Your task to perform on an android device: Clear the shopping cart on amazon.com. Search for "energizer triple a" on amazon.com, select the first entry, add it to the cart, then select checkout. Image 0: 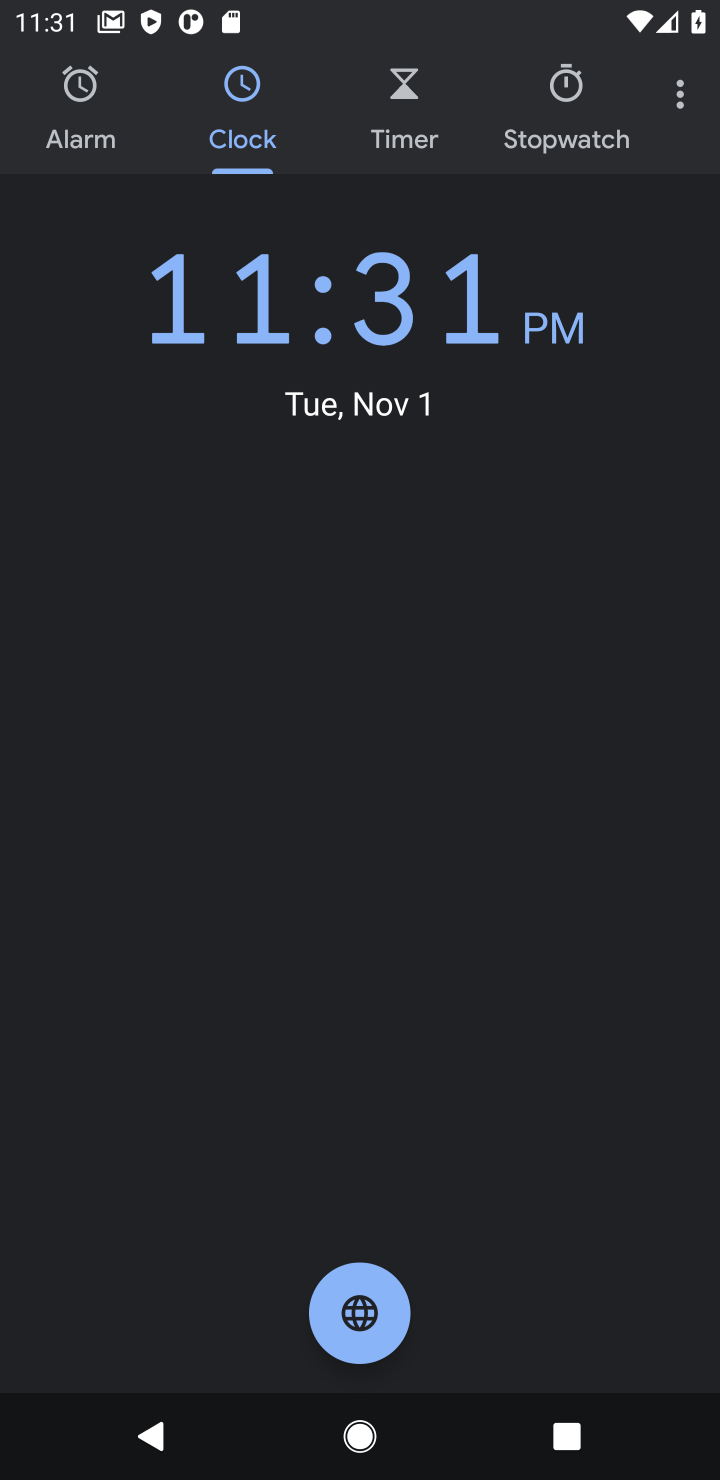
Step 0: press home button
Your task to perform on an android device: Clear the shopping cart on amazon.com. Search for "energizer triple a" on amazon.com, select the first entry, add it to the cart, then select checkout. Image 1: 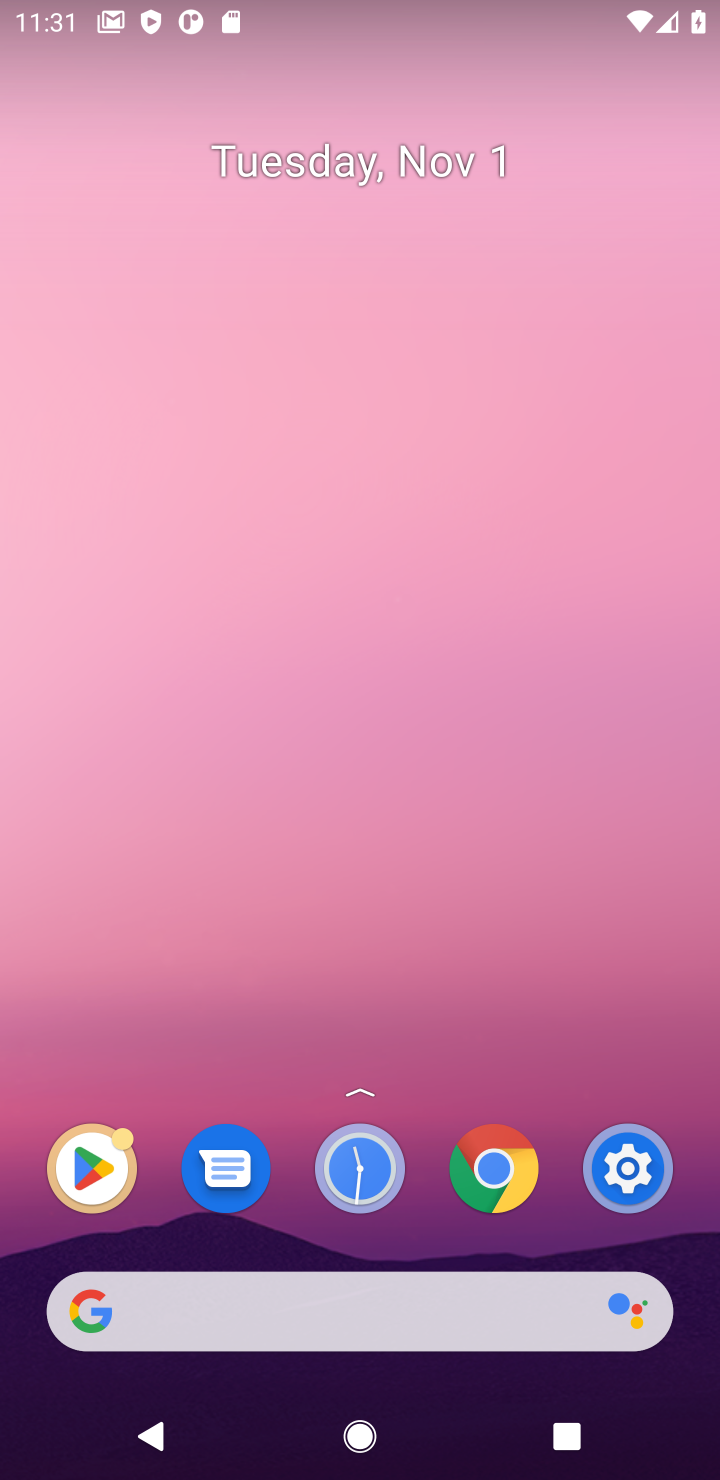
Step 1: click (488, 1154)
Your task to perform on an android device: Clear the shopping cart on amazon.com. Search for "energizer triple a" on amazon.com, select the first entry, add it to the cart, then select checkout. Image 2: 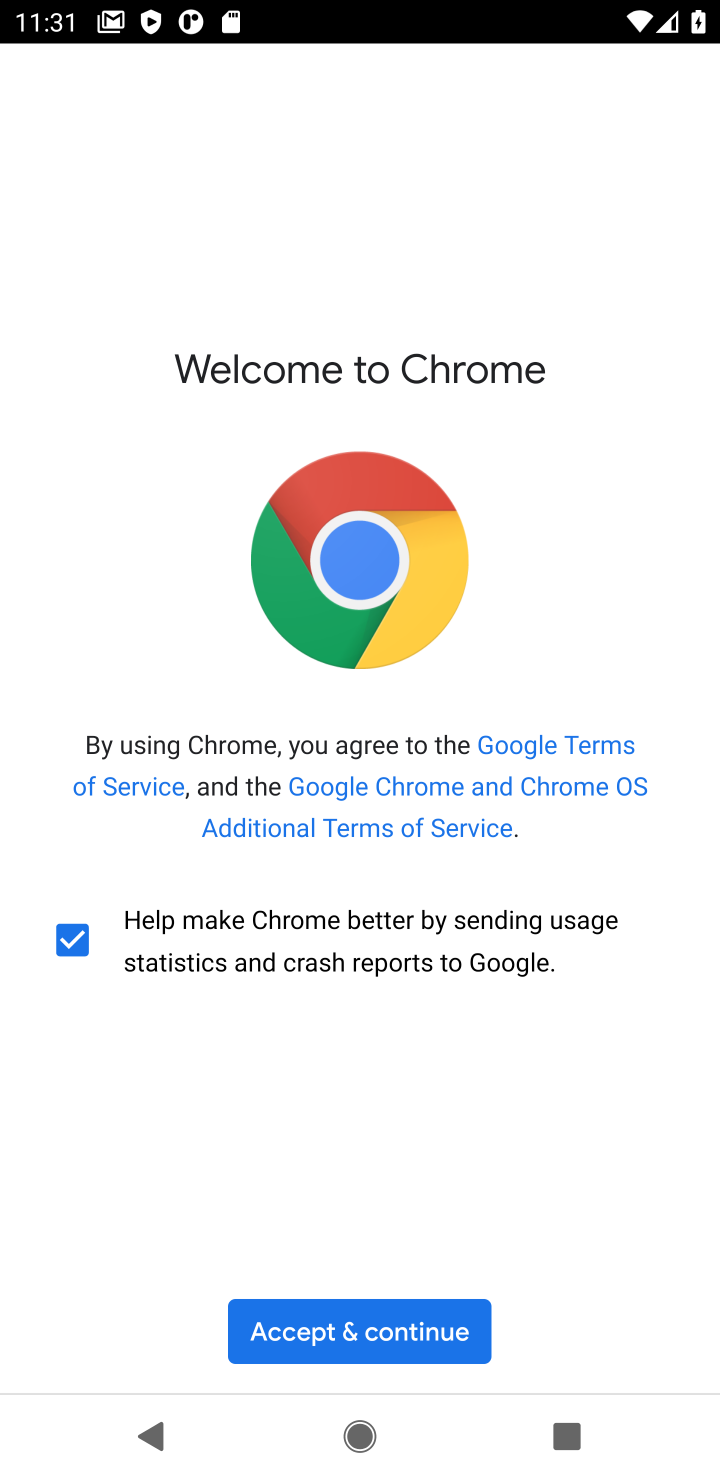
Step 2: click (406, 1335)
Your task to perform on an android device: Clear the shopping cart on amazon.com. Search for "energizer triple a" on amazon.com, select the first entry, add it to the cart, then select checkout. Image 3: 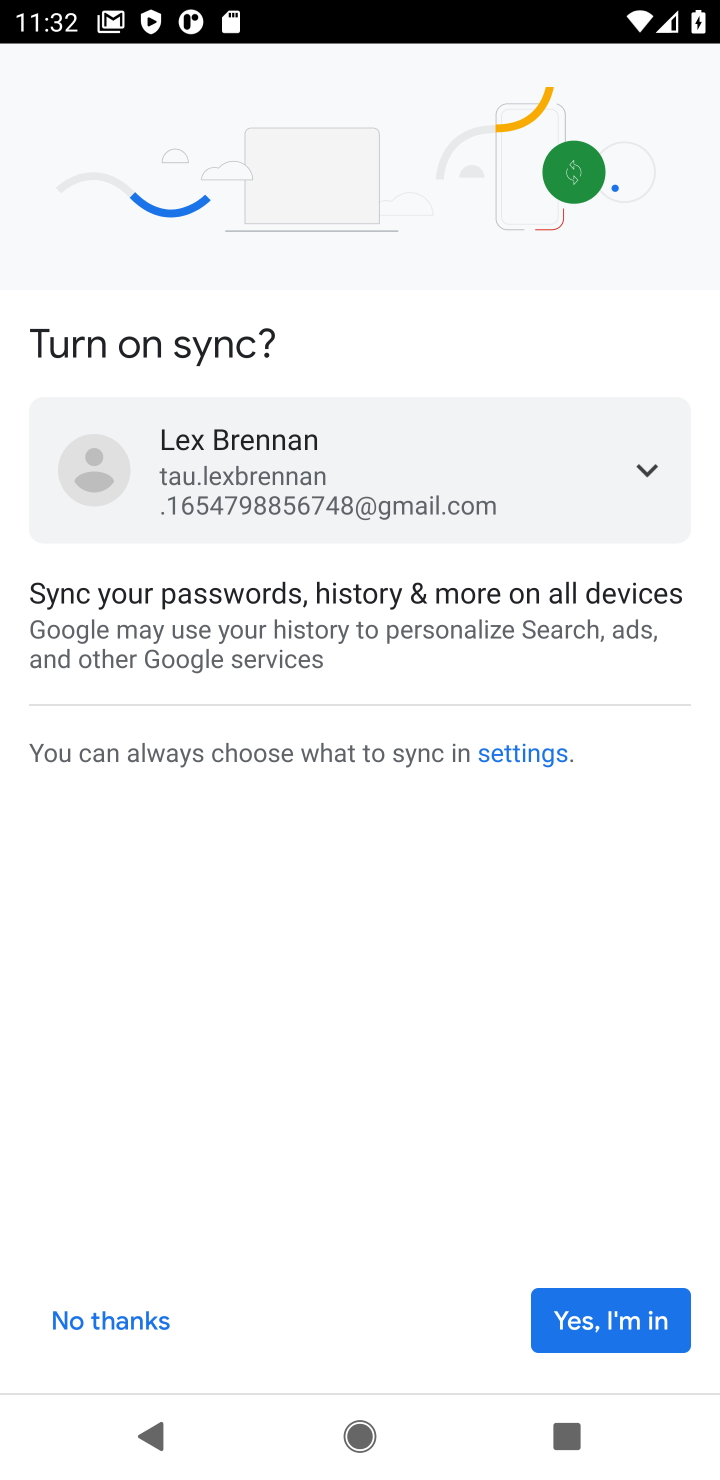
Step 3: click (565, 1318)
Your task to perform on an android device: Clear the shopping cart on amazon.com. Search for "energizer triple a" on amazon.com, select the first entry, add it to the cart, then select checkout. Image 4: 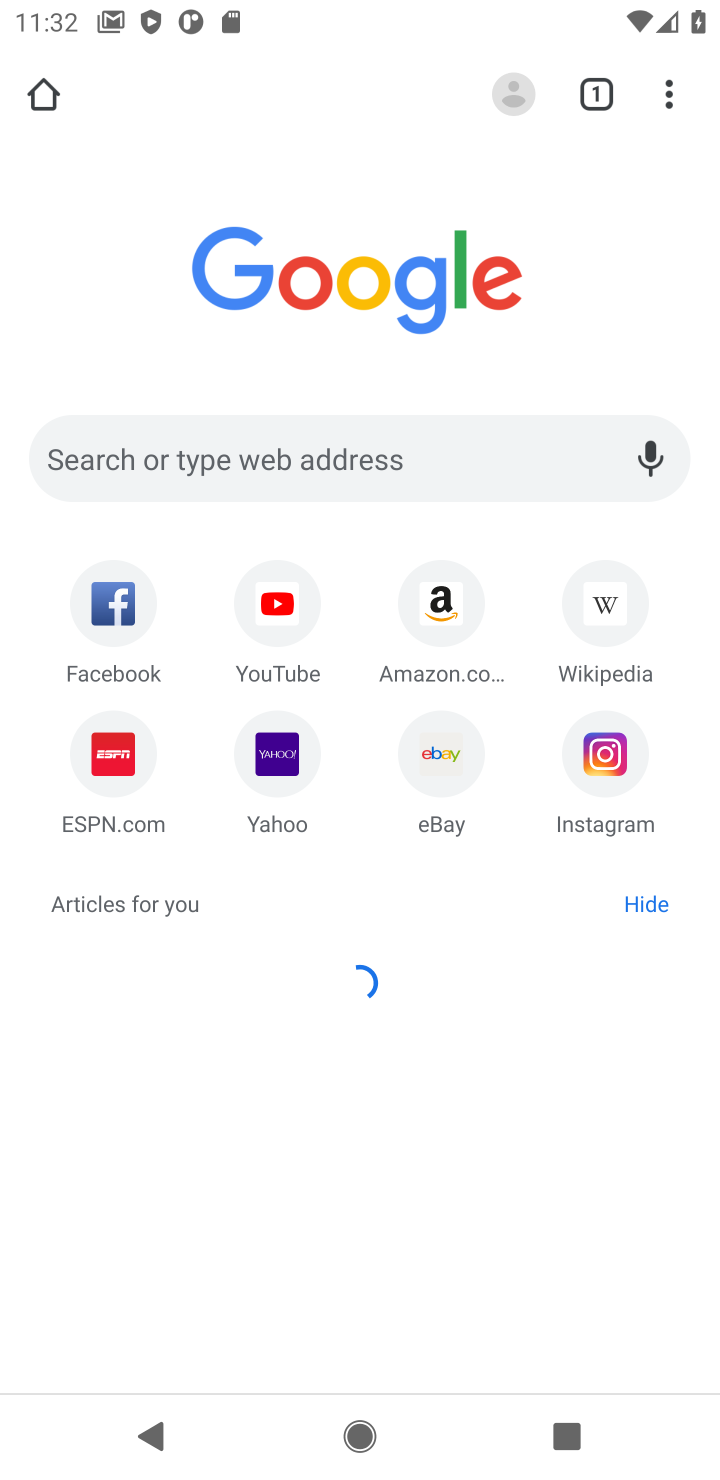
Step 4: click (532, 457)
Your task to perform on an android device: Clear the shopping cart on amazon.com. Search for "energizer triple a" on amazon.com, select the first entry, add it to the cart, then select checkout. Image 5: 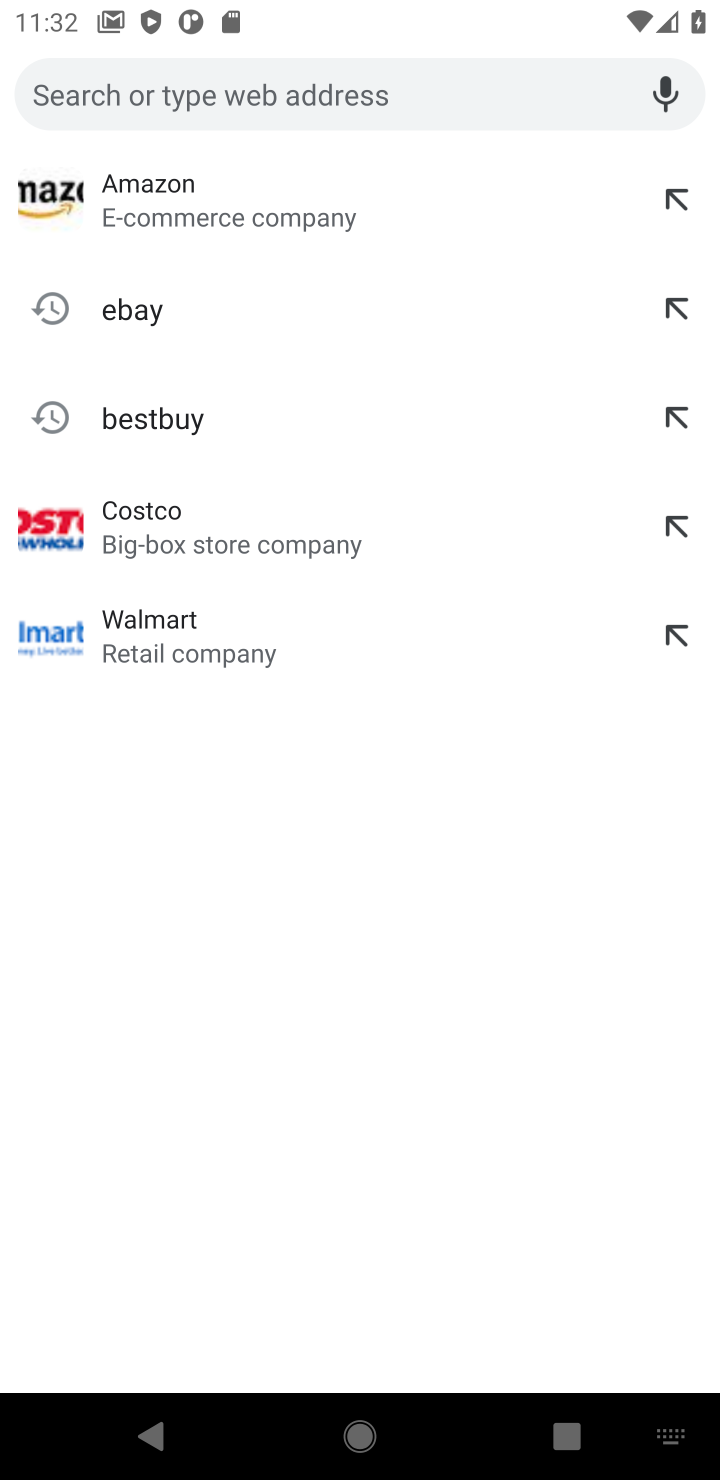
Step 5: press enter
Your task to perform on an android device: Clear the shopping cart on amazon.com. Search for "energizer triple a" on amazon.com, select the first entry, add it to the cart, then select checkout. Image 6: 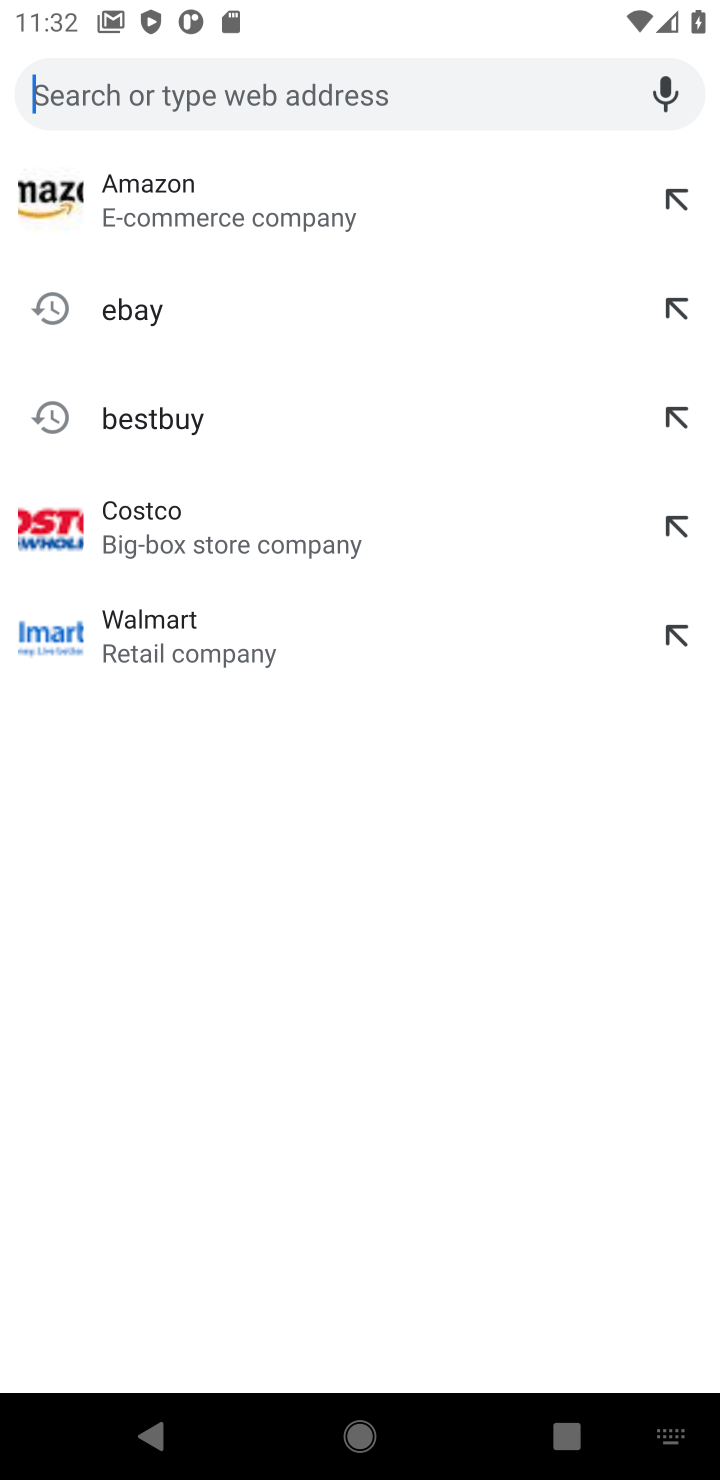
Step 6: type "amazon.com"
Your task to perform on an android device: Clear the shopping cart on amazon.com. Search for "energizer triple a" on amazon.com, select the first entry, add it to the cart, then select checkout. Image 7: 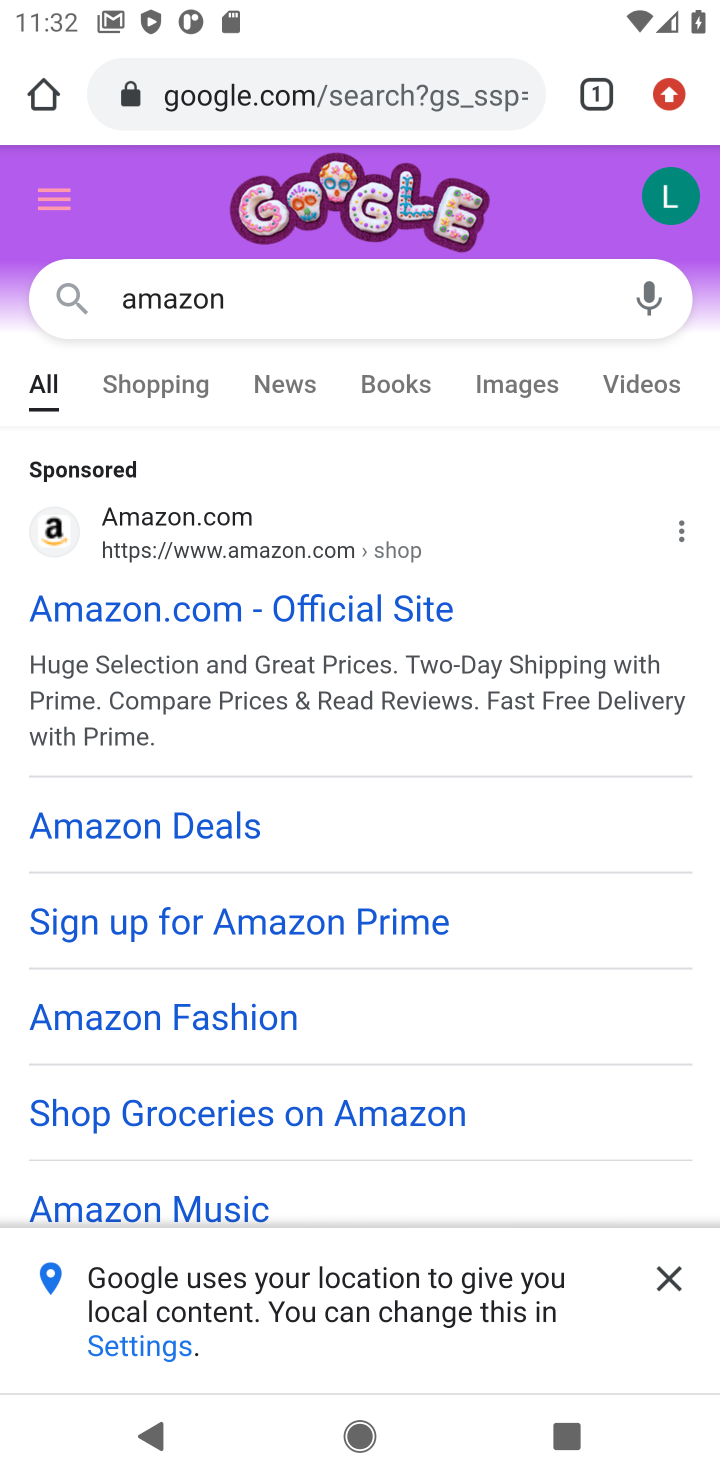
Step 7: click (200, 514)
Your task to perform on an android device: Clear the shopping cart on amazon.com. Search for "energizer triple a" on amazon.com, select the first entry, add it to the cart, then select checkout. Image 8: 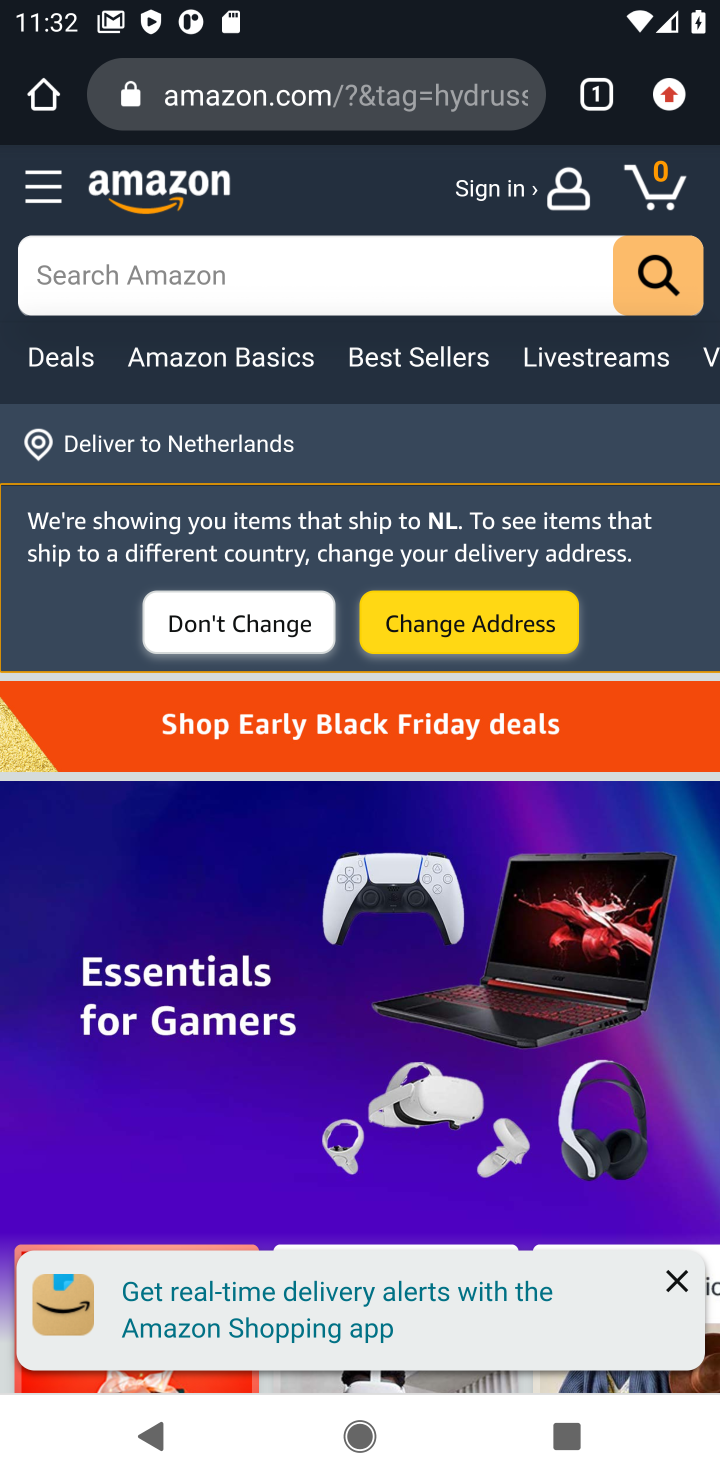
Step 8: click (424, 267)
Your task to perform on an android device: Clear the shopping cart on amazon.com. Search for "energizer triple a" on amazon.com, select the first entry, add it to the cart, then select checkout. Image 9: 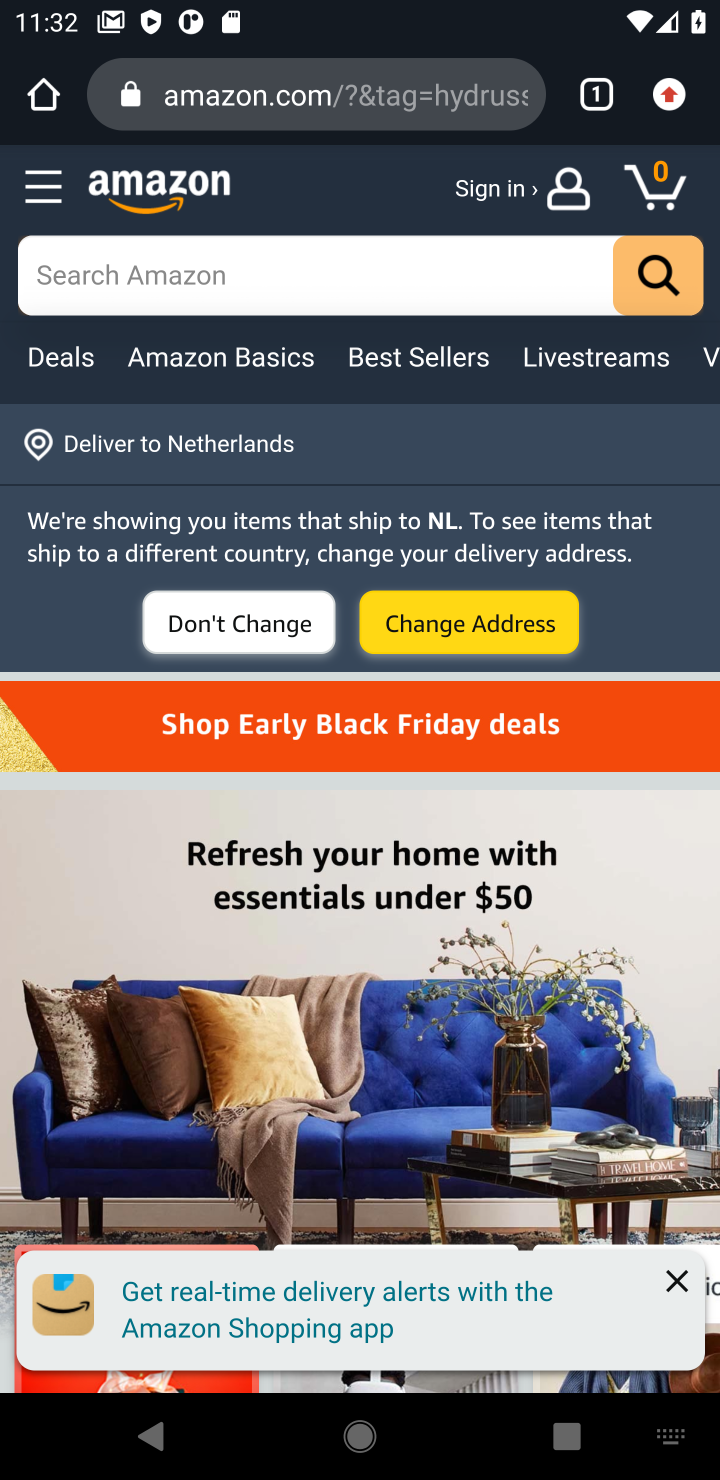
Step 9: press enter
Your task to perform on an android device: Clear the shopping cart on amazon.com. Search for "energizer triple a" on amazon.com, select the first entry, add it to the cart, then select checkout. Image 10: 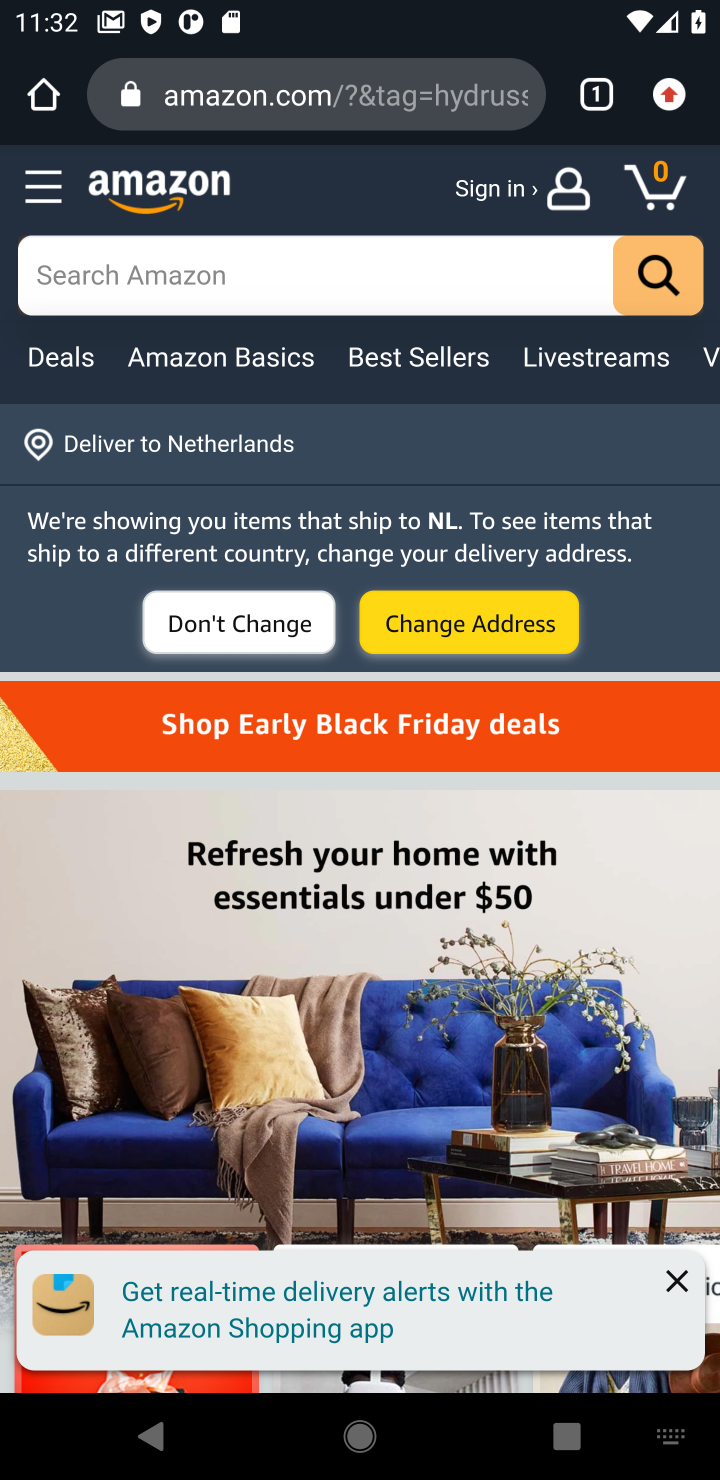
Step 10: type "energizer triple a"
Your task to perform on an android device: Clear the shopping cart on amazon.com. Search for "energizer triple a" on amazon.com, select the first entry, add it to the cart, then select checkout. Image 11: 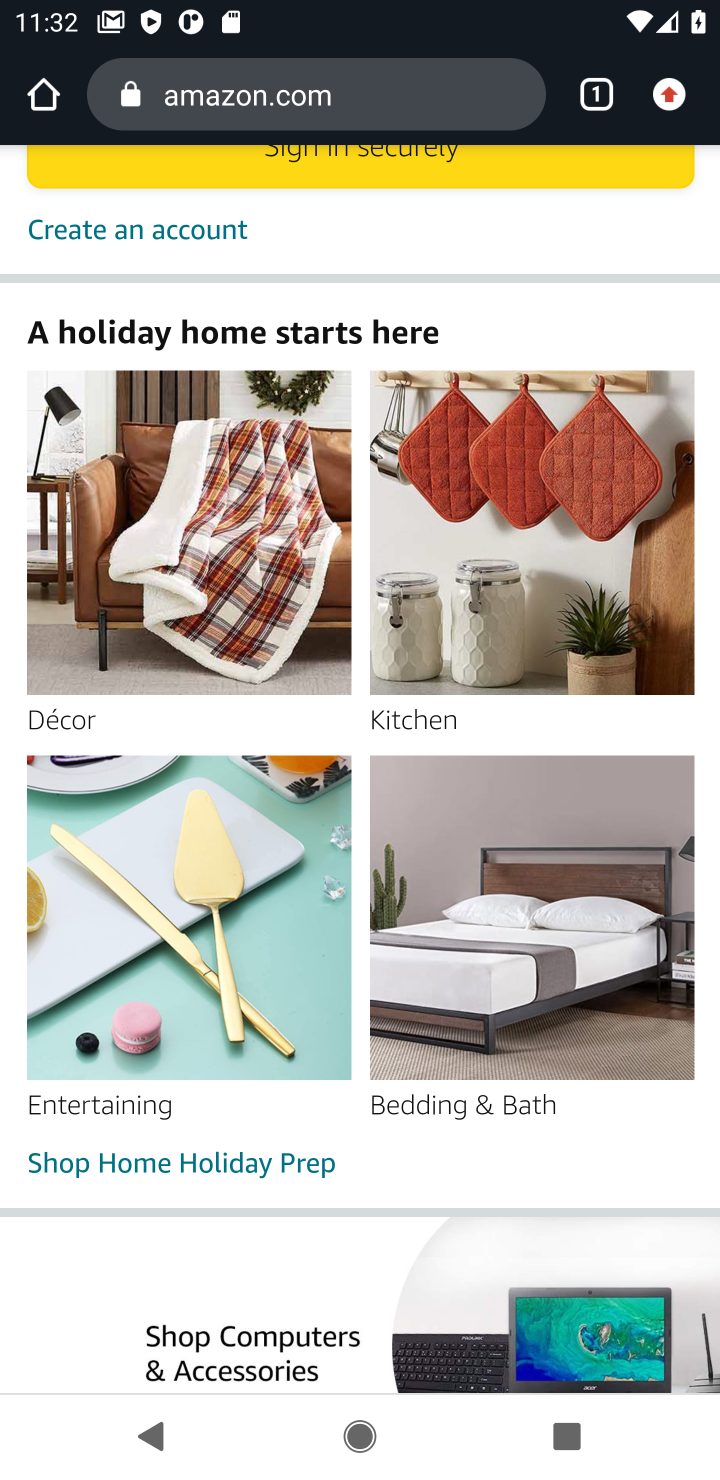
Step 11: drag from (351, 240) to (414, 1091)
Your task to perform on an android device: Clear the shopping cart on amazon.com. Search for "energizer triple a" on amazon.com, select the first entry, add it to the cart, then select checkout. Image 12: 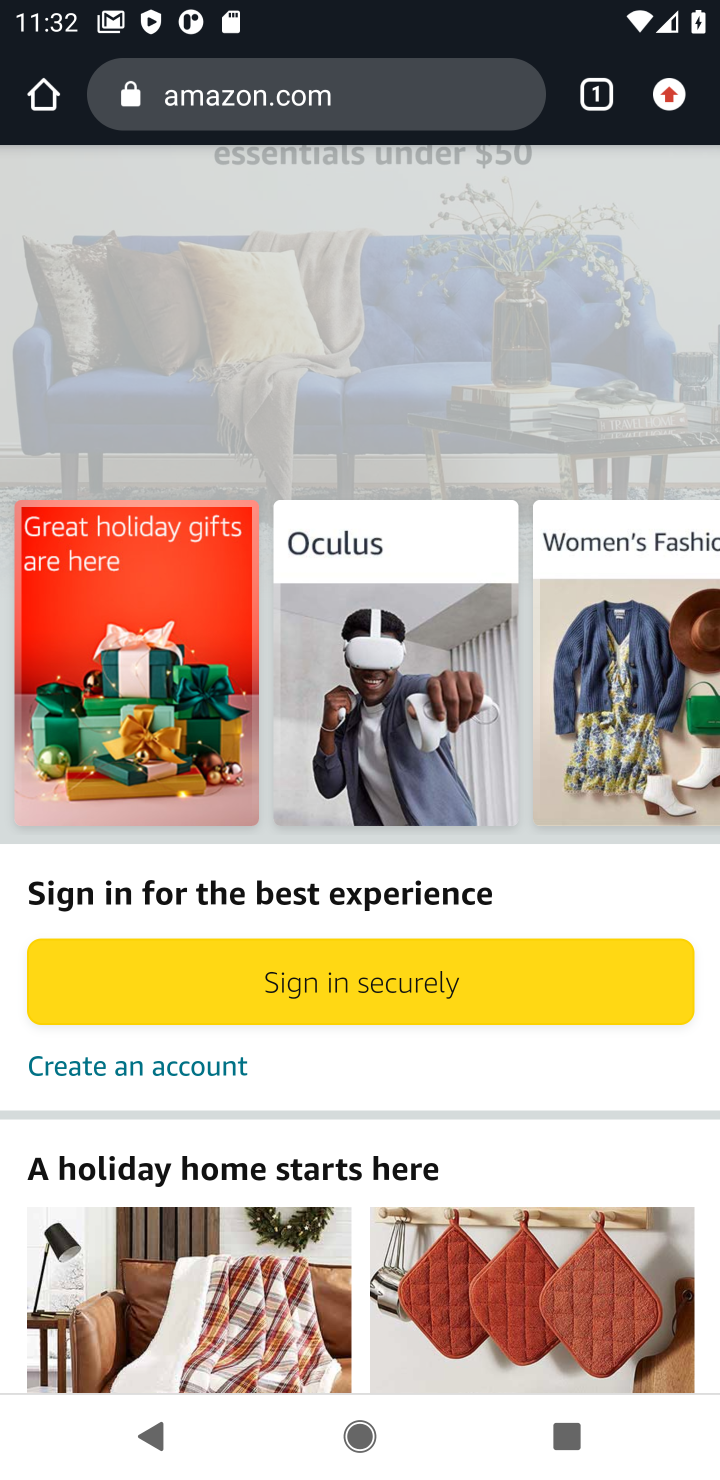
Step 12: click (574, 924)
Your task to perform on an android device: Clear the shopping cart on amazon.com. Search for "energizer triple a" on amazon.com, select the first entry, add it to the cart, then select checkout. Image 13: 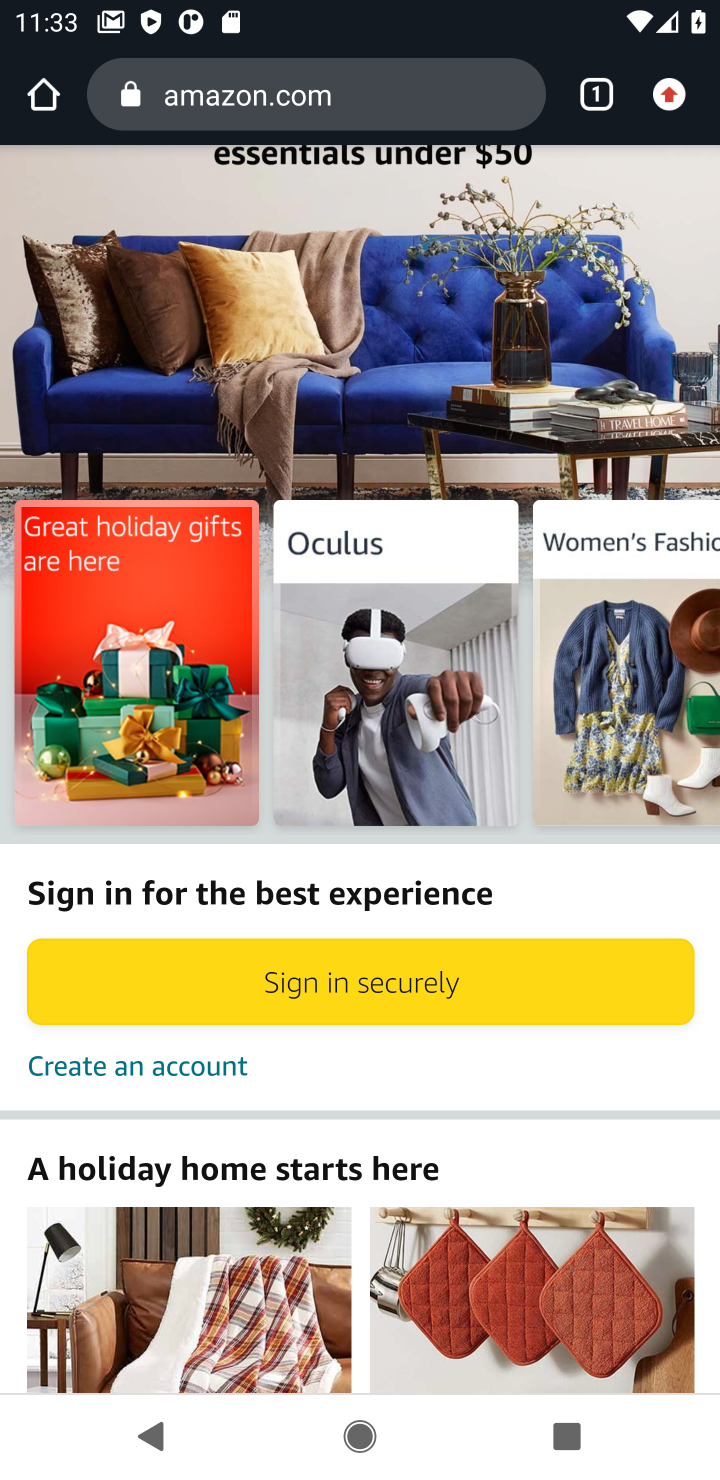
Step 13: drag from (422, 538) to (461, 1151)
Your task to perform on an android device: Clear the shopping cart on amazon.com. Search for "energizer triple a" on amazon.com, select the first entry, add it to the cart, then select checkout. Image 14: 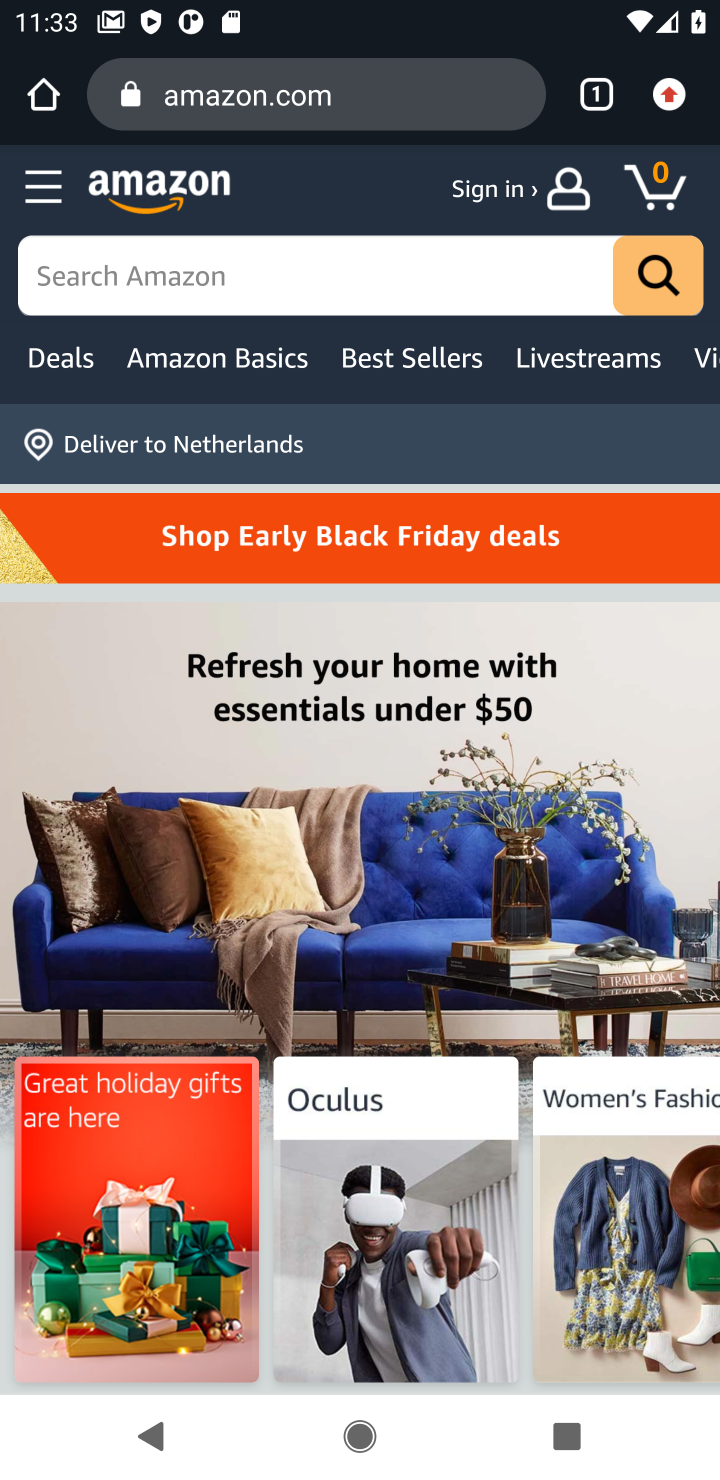
Step 14: click (314, 271)
Your task to perform on an android device: Clear the shopping cart on amazon.com. Search for "energizer triple a" on amazon.com, select the first entry, add it to the cart, then select checkout. Image 15: 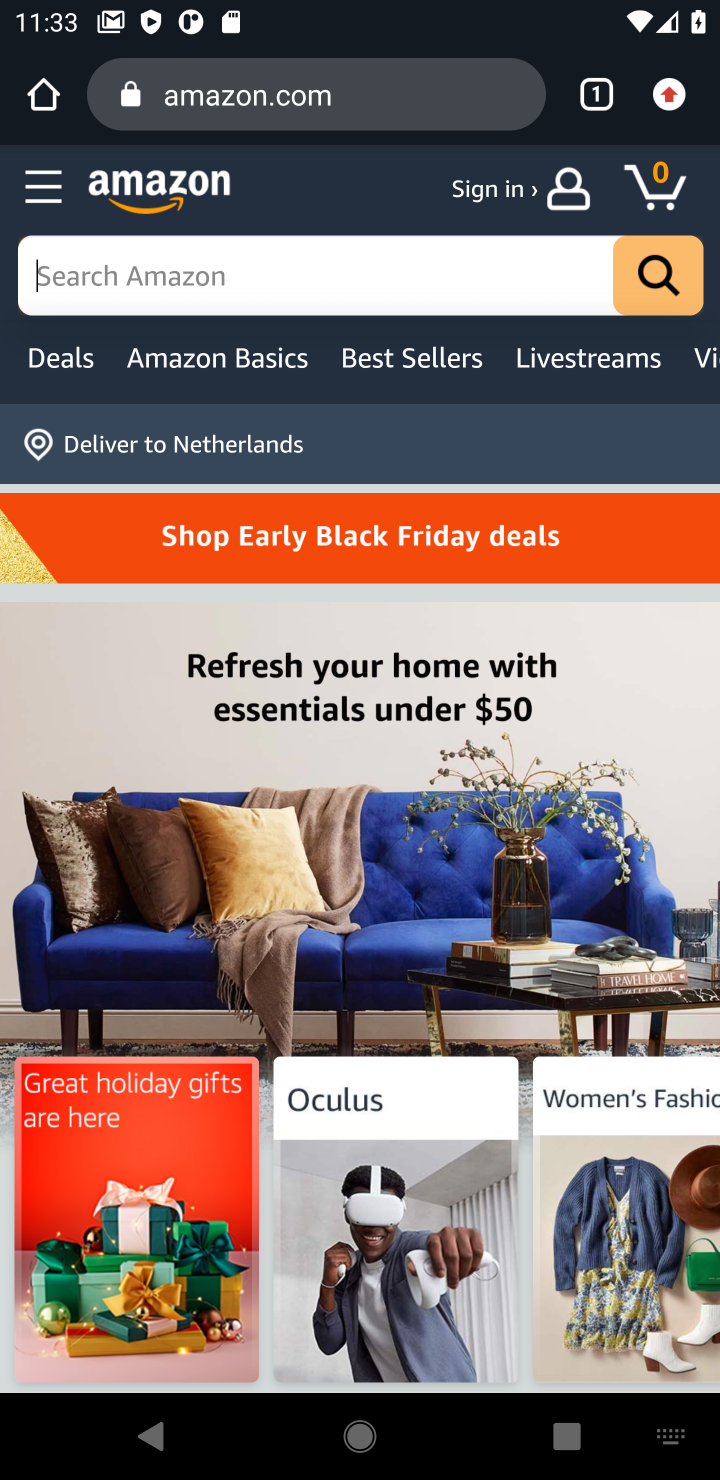
Step 15: press enter
Your task to perform on an android device: Clear the shopping cart on amazon.com. Search for "energizer triple a" on amazon.com, select the first entry, add it to the cart, then select checkout. Image 16: 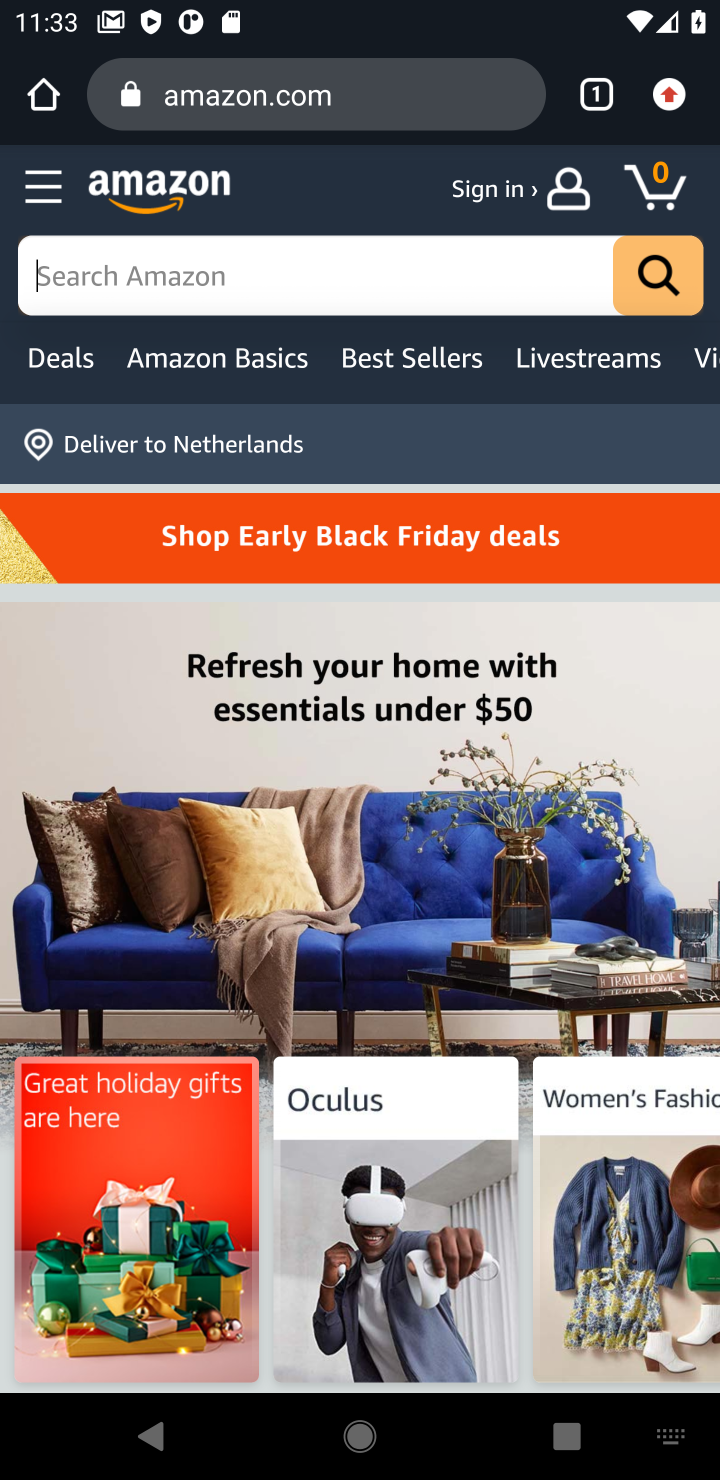
Step 16: type "energizer triple a"
Your task to perform on an android device: Clear the shopping cart on amazon.com. Search for "energizer triple a" on amazon.com, select the first entry, add it to the cart, then select checkout. Image 17: 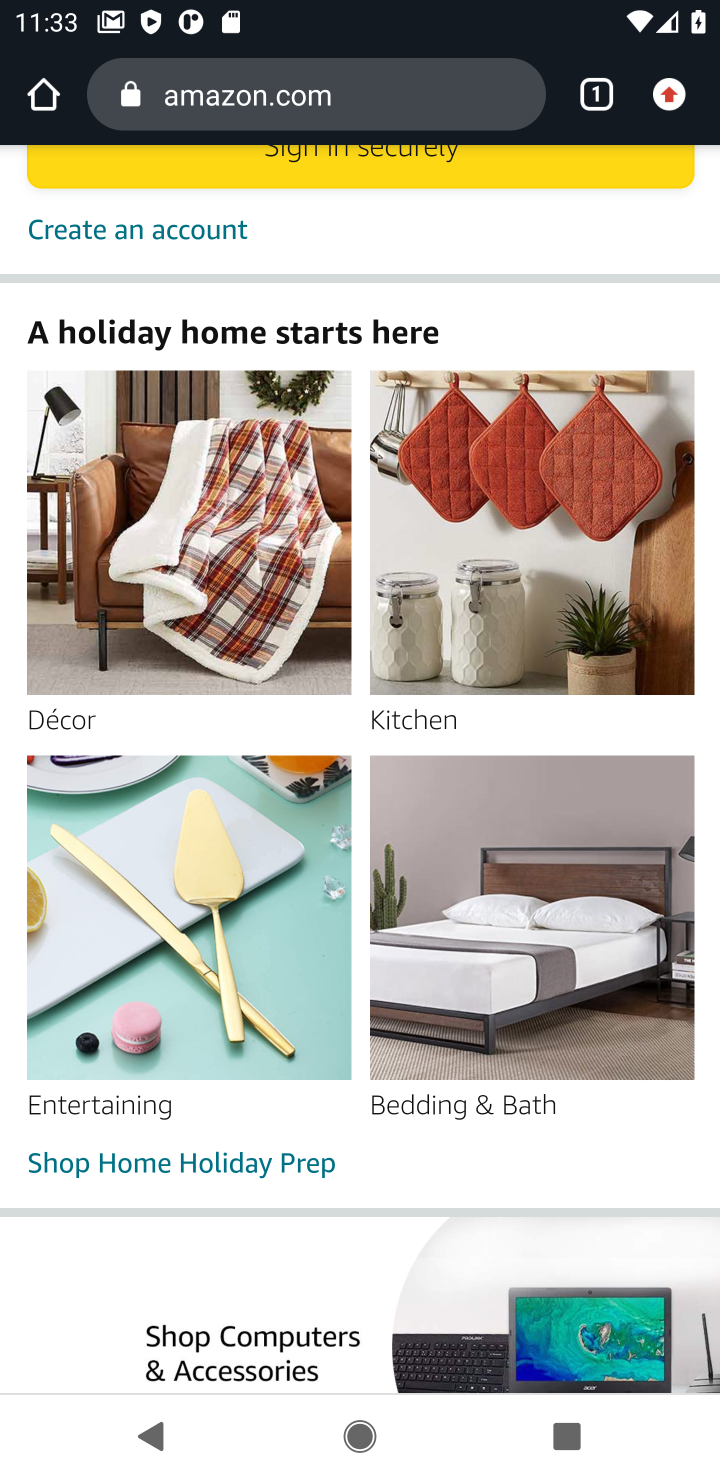
Step 17: click (438, 97)
Your task to perform on an android device: Clear the shopping cart on amazon.com. Search for "energizer triple a" on amazon.com, select the first entry, add it to the cart, then select checkout. Image 18: 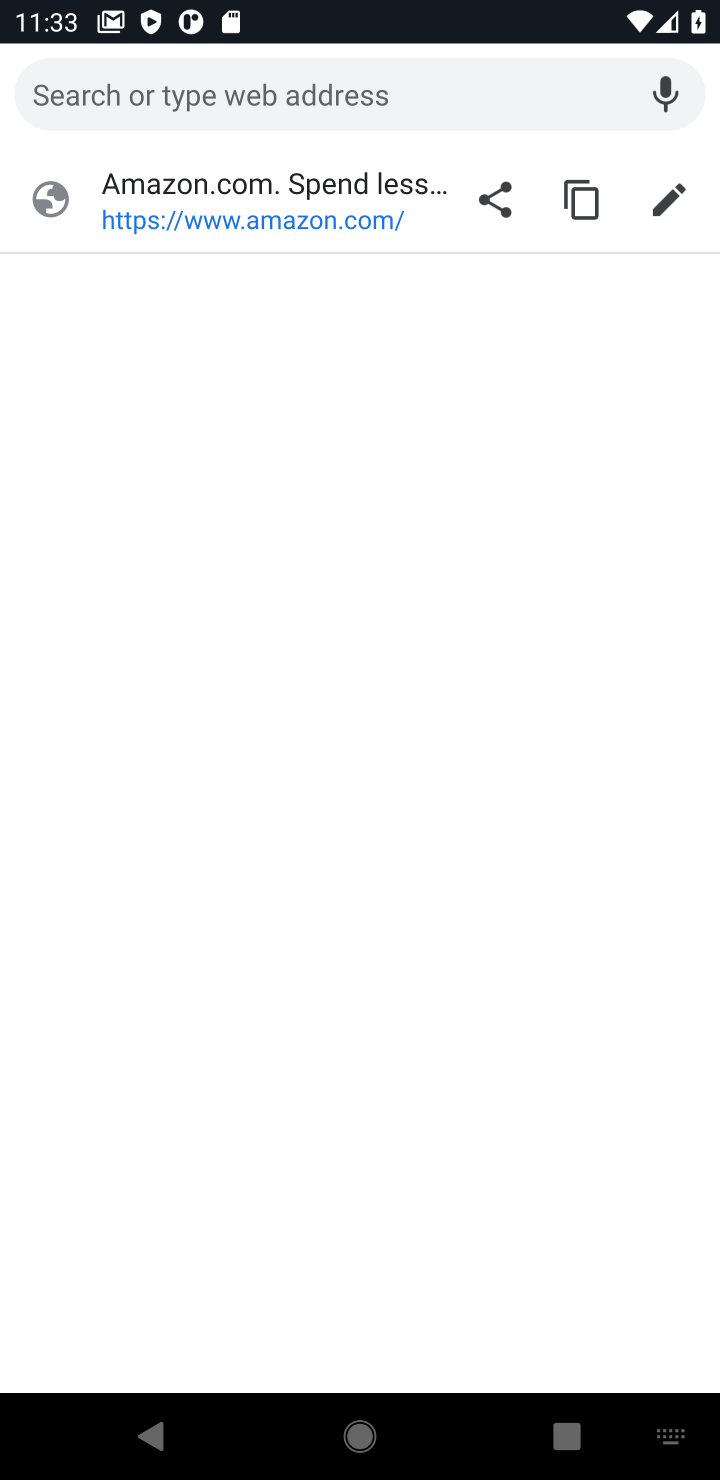
Step 18: click (326, 191)
Your task to perform on an android device: Clear the shopping cart on amazon.com. Search for "energizer triple a" on amazon.com, select the first entry, add it to the cart, then select checkout. Image 19: 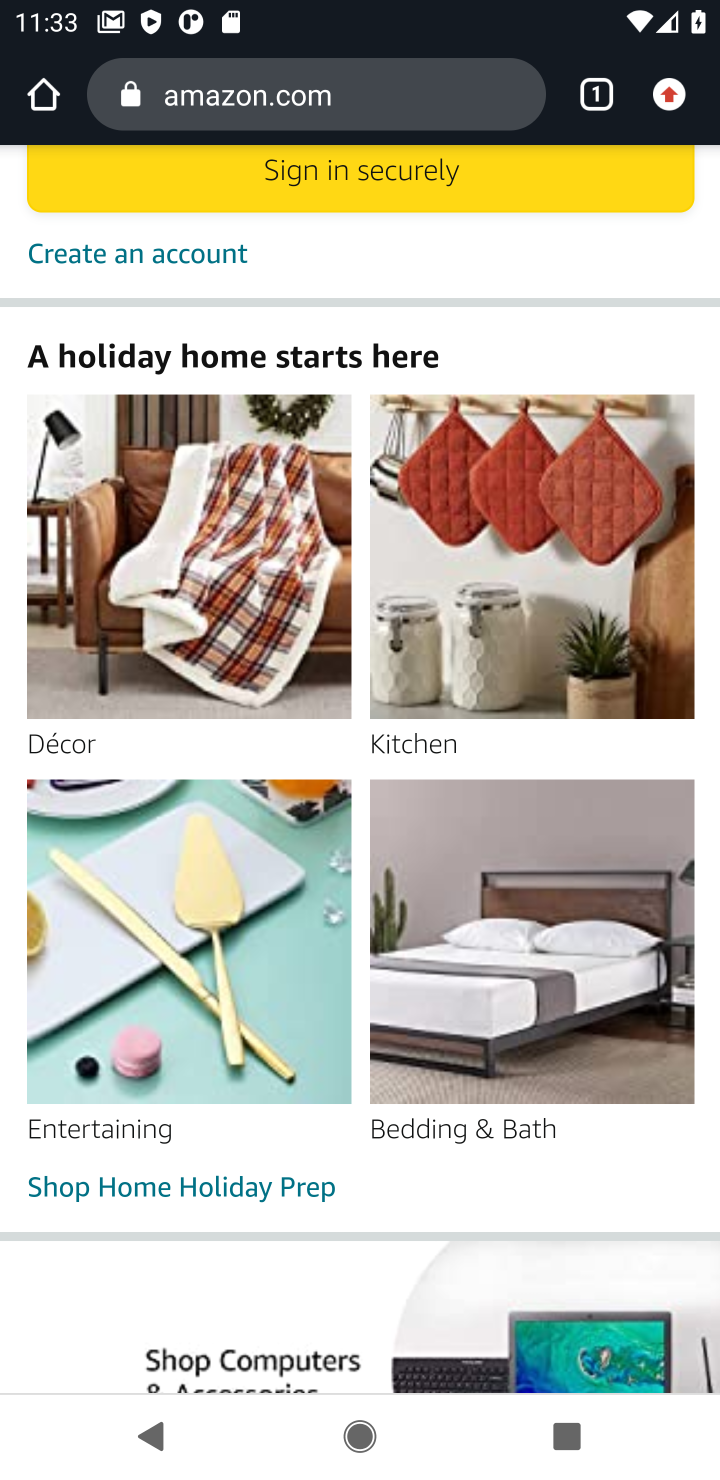
Step 19: drag from (568, 278) to (690, 954)
Your task to perform on an android device: Clear the shopping cart on amazon.com. Search for "energizer triple a" on amazon.com, select the first entry, add it to the cart, then select checkout. Image 20: 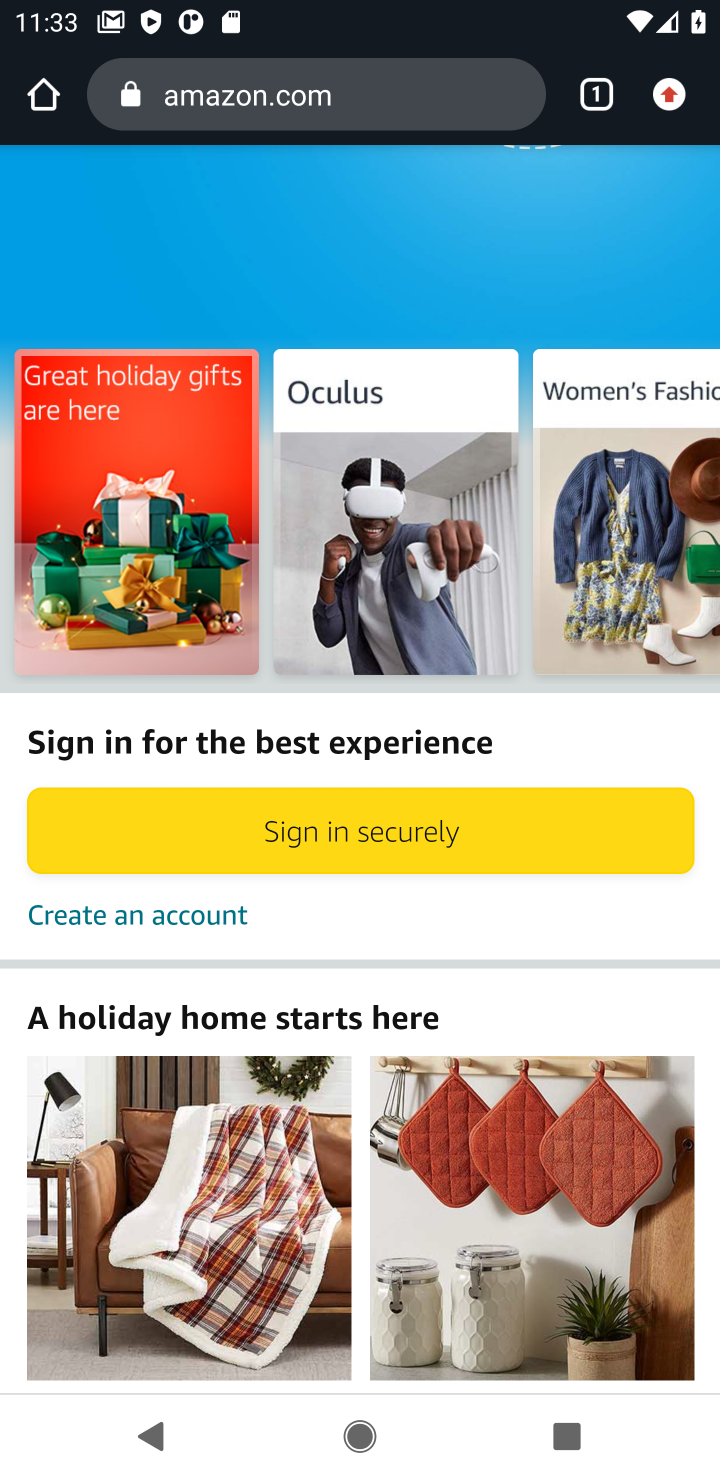
Step 20: drag from (371, 620) to (443, 1145)
Your task to perform on an android device: Clear the shopping cart on amazon.com. Search for "energizer triple a" on amazon.com, select the first entry, add it to the cart, then select checkout. Image 21: 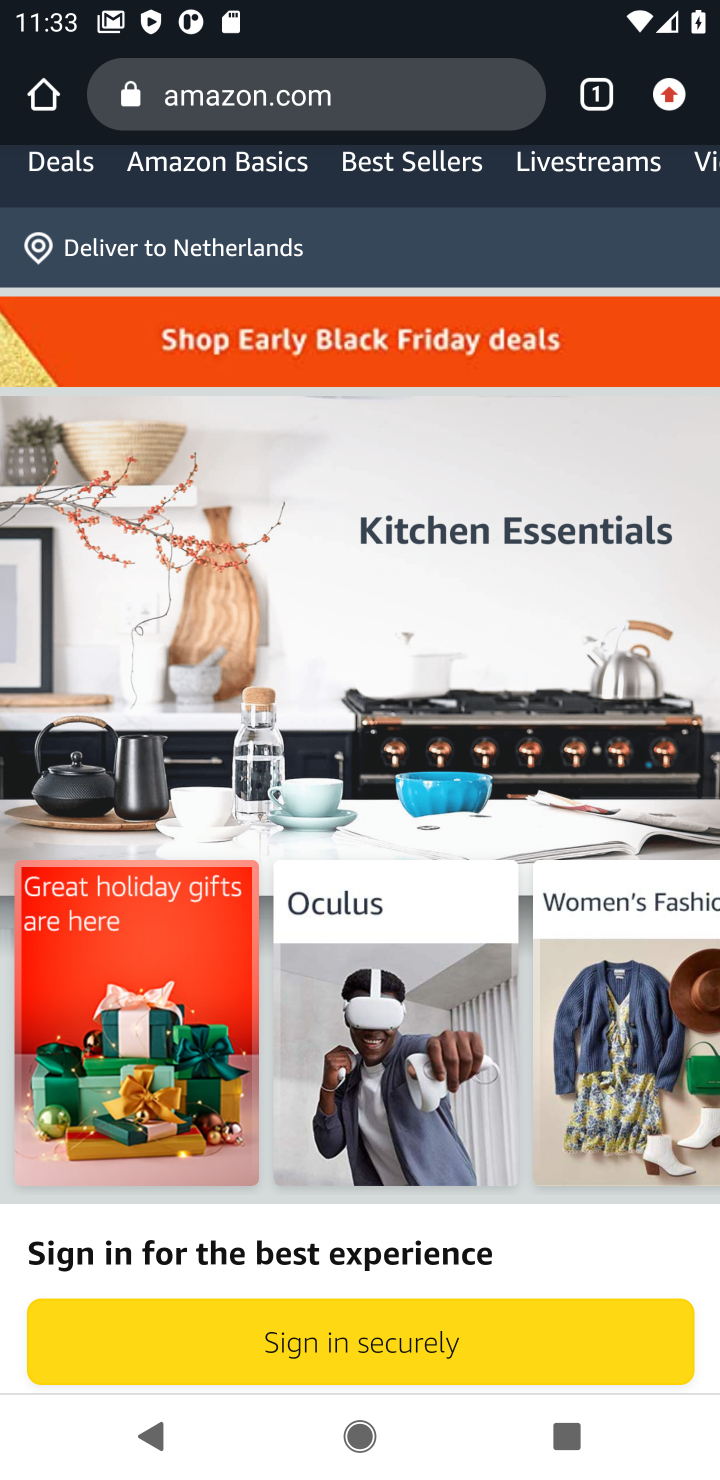
Step 21: drag from (259, 480) to (334, 1068)
Your task to perform on an android device: Clear the shopping cart on amazon.com. Search for "energizer triple a" on amazon.com, select the first entry, add it to the cart, then select checkout. Image 22: 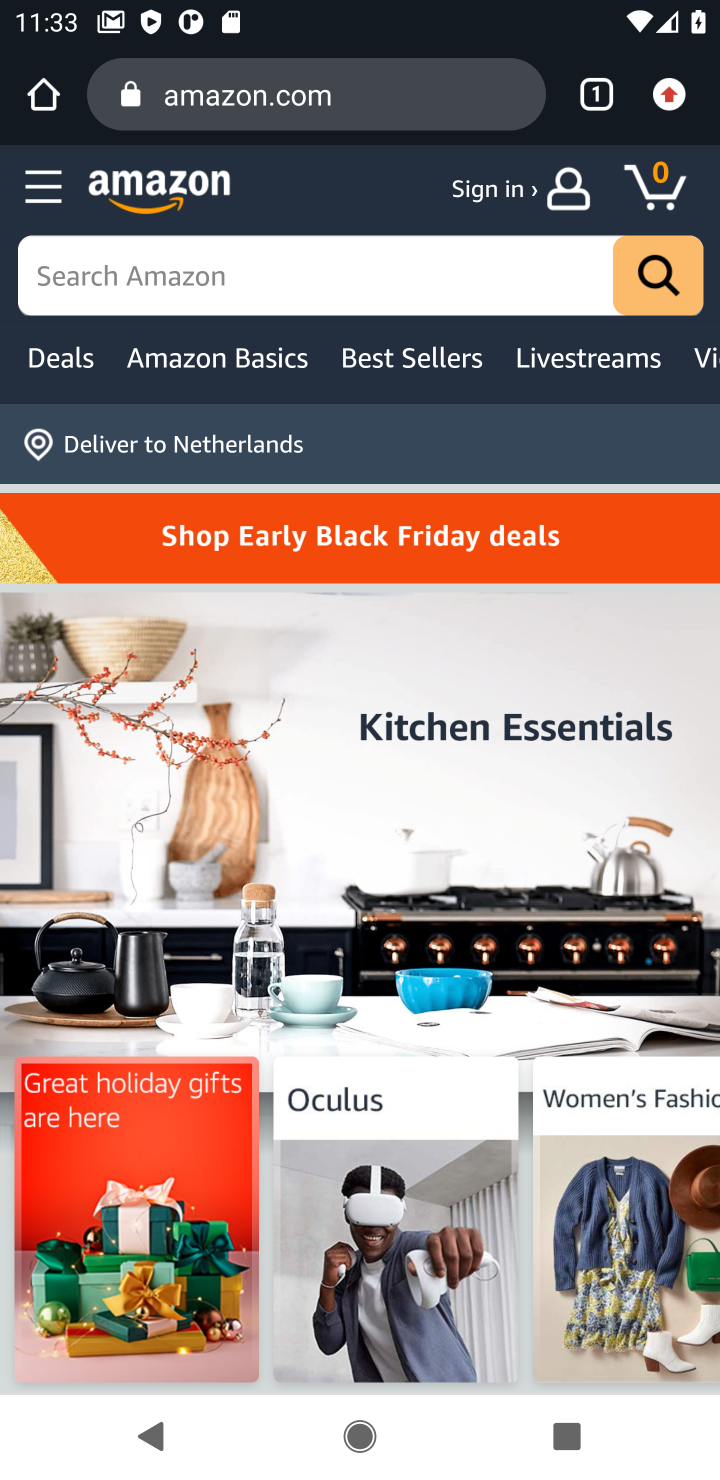
Step 22: click (529, 272)
Your task to perform on an android device: Clear the shopping cart on amazon.com. Search for "energizer triple a" on amazon.com, select the first entry, add it to the cart, then select checkout. Image 23: 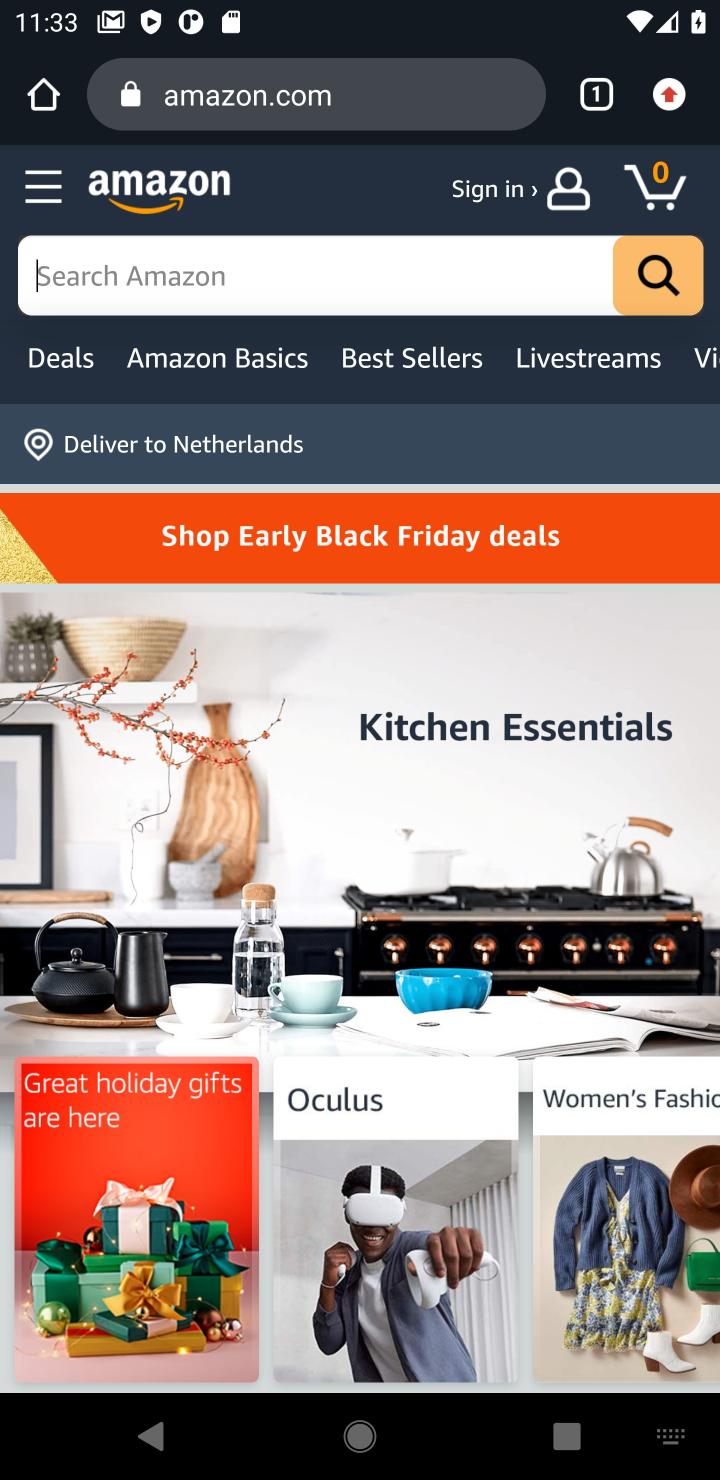
Step 23: type "energizer triple a"
Your task to perform on an android device: Clear the shopping cart on amazon.com. Search for "energizer triple a" on amazon.com, select the first entry, add it to the cart, then select checkout. Image 24: 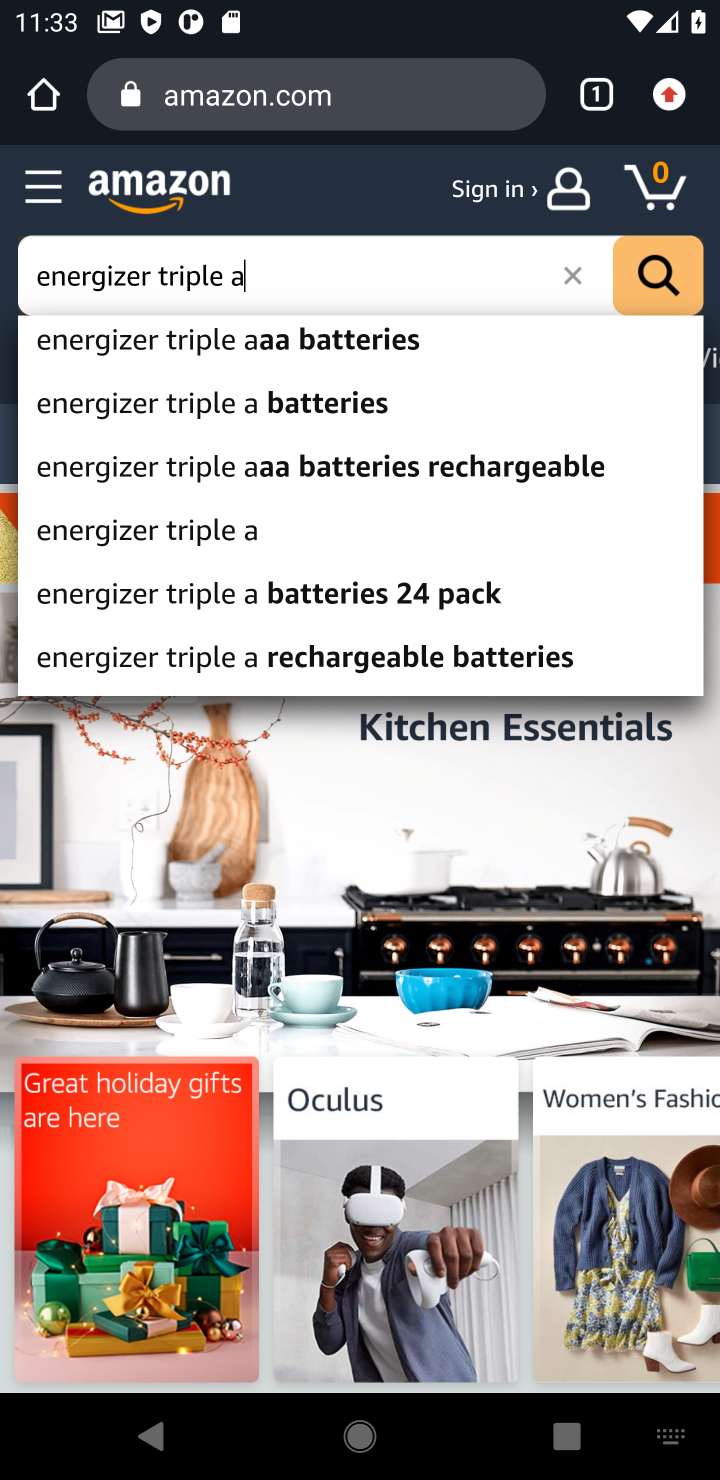
Step 24: click (224, 526)
Your task to perform on an android device: Clear the shopping cart on amazon.com. Search for "energizer triple a" on amazon.com, select the first entry, add it to the cart, then select checkout. Image 25: 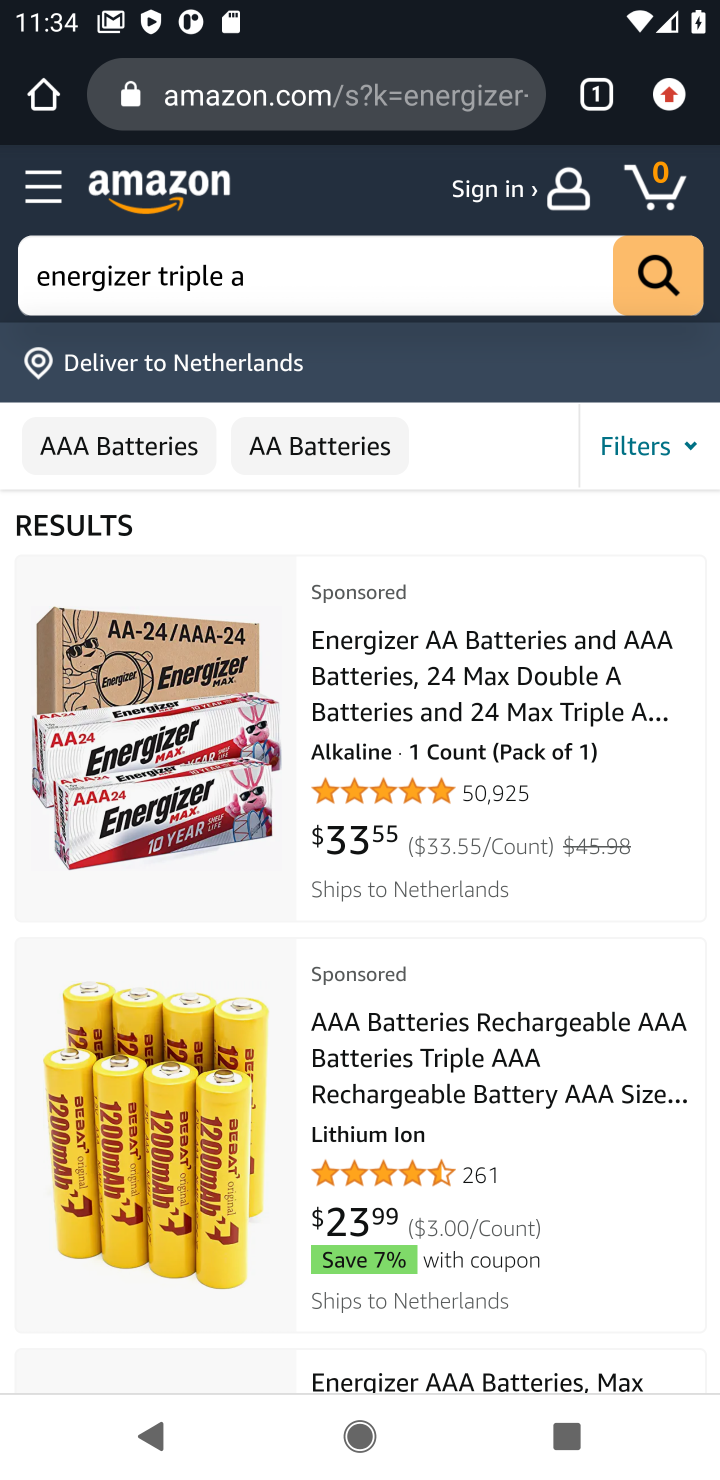
Step 25: click (177, 1091)
Your task to perform on an android device: Clear the shopping cart on amazon.com. Search for "energizer triple a" on amazon.com, select the first entry, add it to the cart, then select checkout. Image 26: 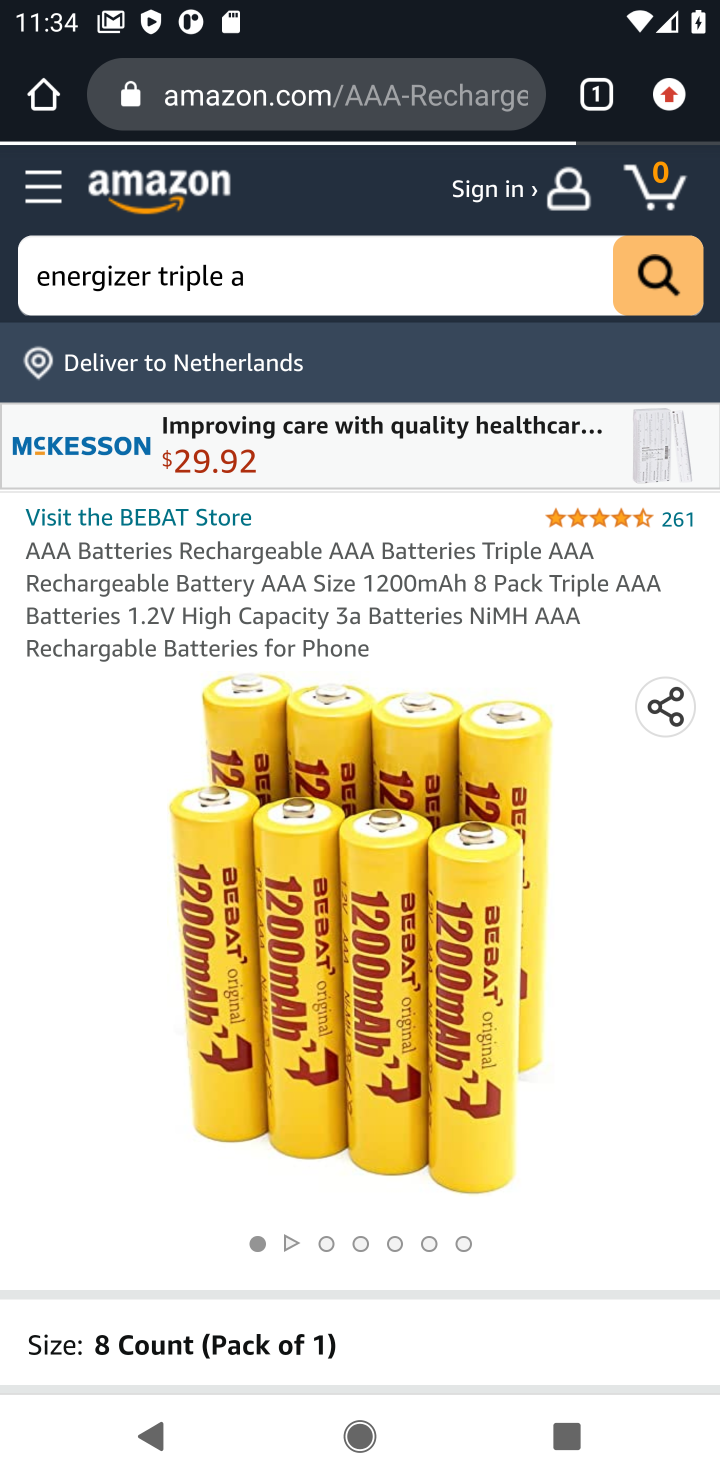
Step 26: drag from (480, 1121) to (465, 528)
Your task to perform on an android device: Clear the shopping cart on amazon.com. Search for "energizer triple a" on amazon.com, select the first entry, add it to the cart, then select checkout. Image 27: 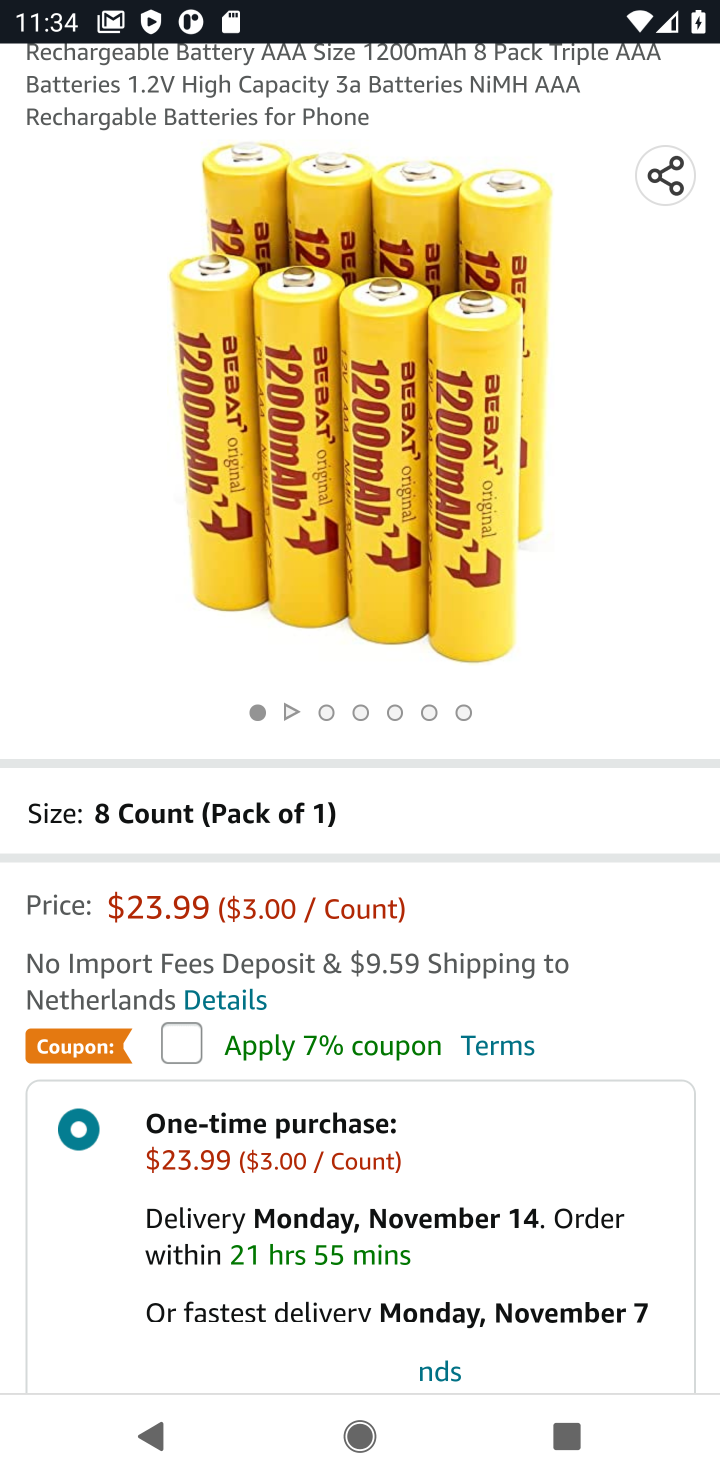
Step 27: drag from (515, 1020) to (493, 581)
Your task to perform on an android device: Clear the shopping cart on amazon.com. Search for "energizer triple a" on amazon.com, select the first entry, add it to the cart, then select checkout. Image 28: 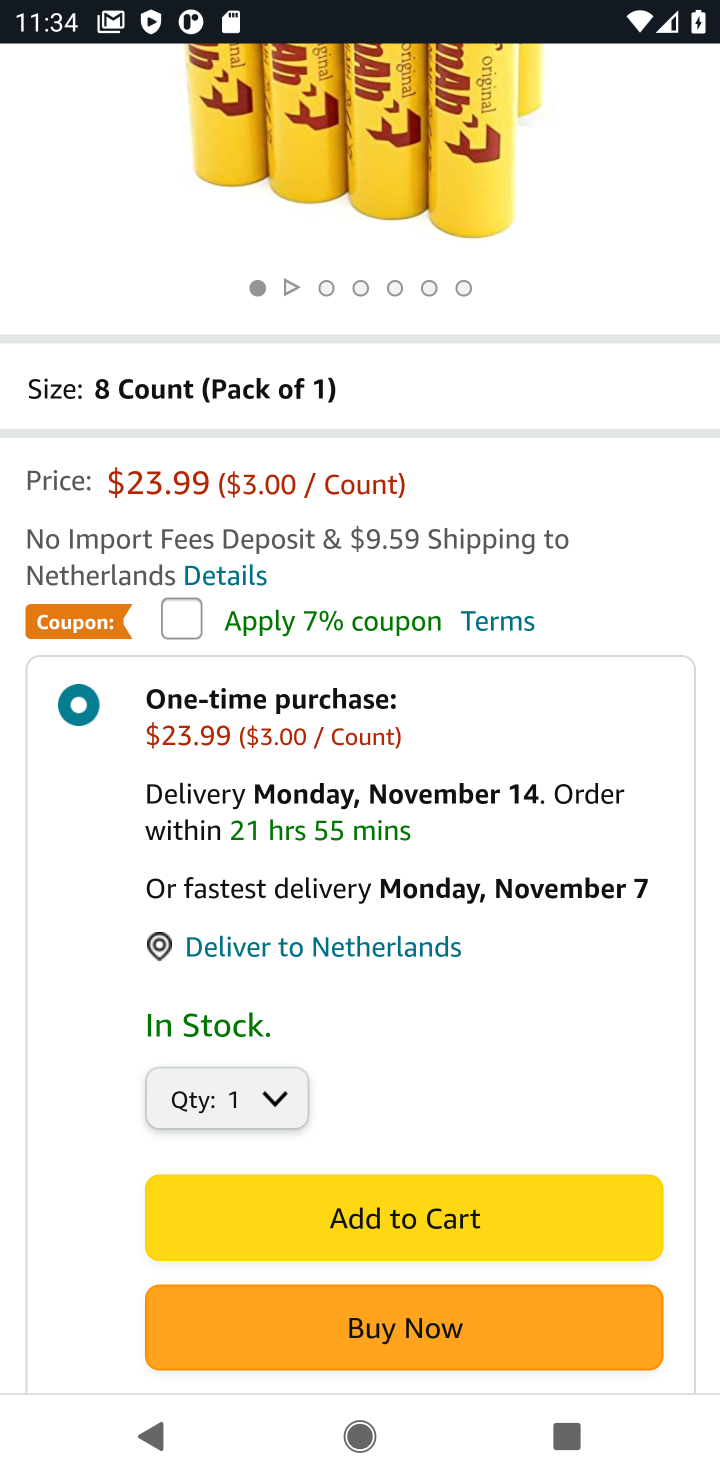
Step 28: click (502, 1210)
Your task to perform on an android device: Clear the shopping cart on amazon.com. Search for "energizer triple a" on amazon.com, select the first entry, add it to the cart, then select checkout. Image 29: 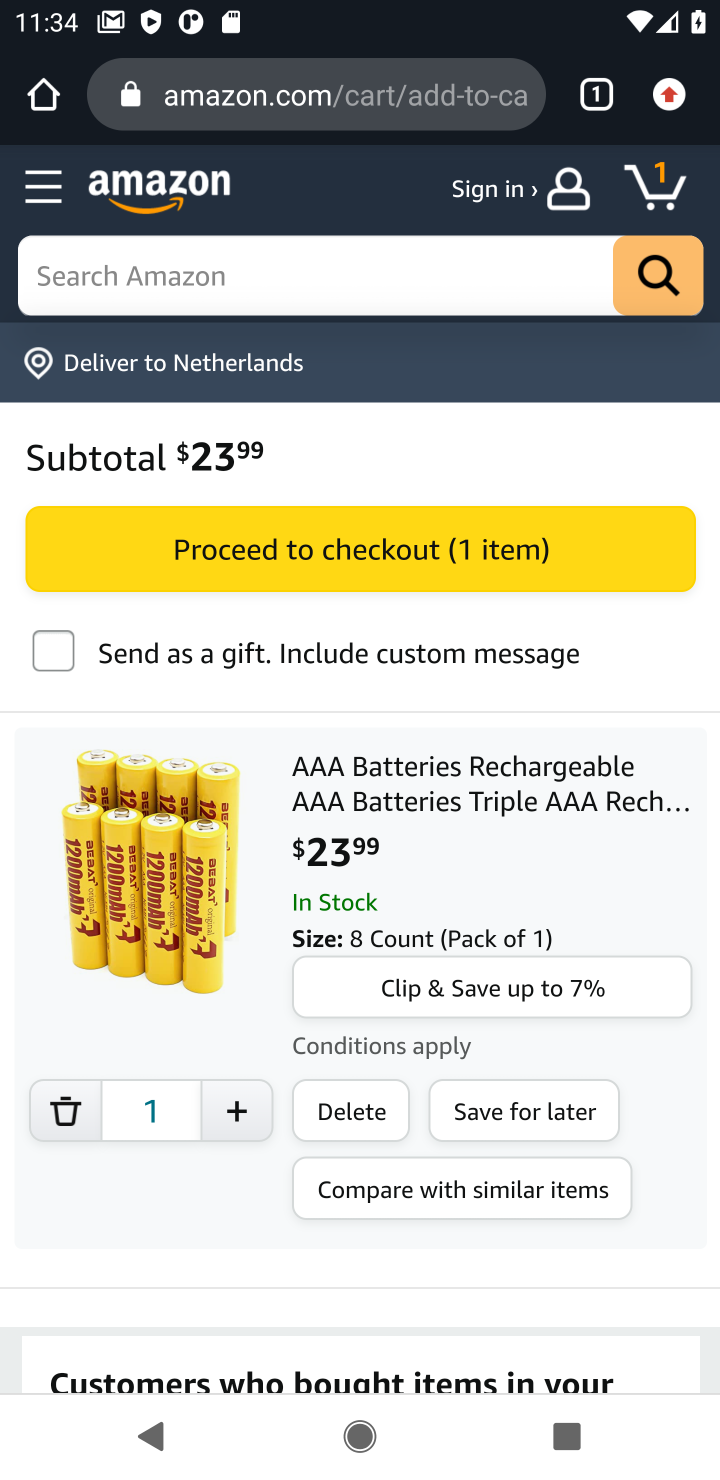
Step 29: task complete